Your task to perform on an android device: Go to Maps Image 0: 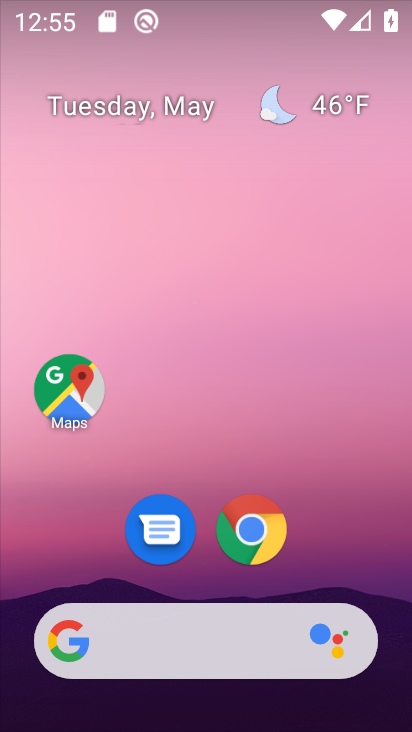
Step 0: click (64, 398)
Your task to perform on an android device: Go to Maps Image 1: 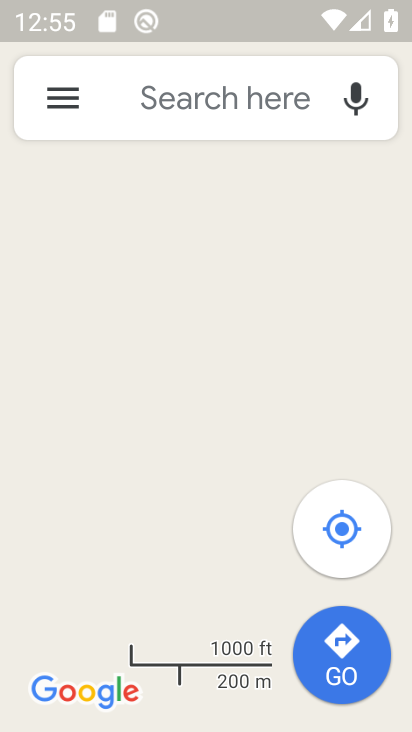
Step 1: task complete